Your task to perform on an android device: Open Google Chrome and click the shortcut for Amazon.com Image 0: 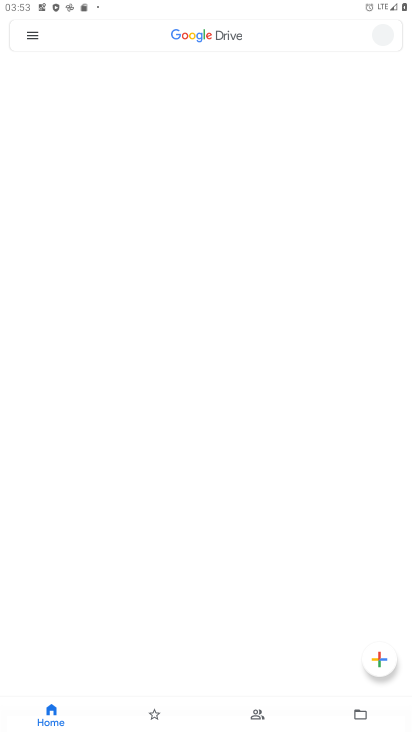
Step 0: press home button
Your task to perform on an android device: Open Google Chrome and click the shortcut for Amazon.com Image 1: 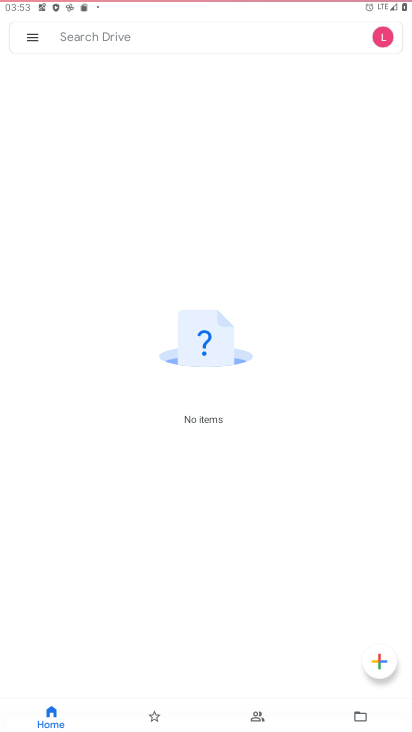
Step 1: press home button
Your task to perform on an android device: Open Google Chrome and click the shortcut for Amazon.com Image 2: 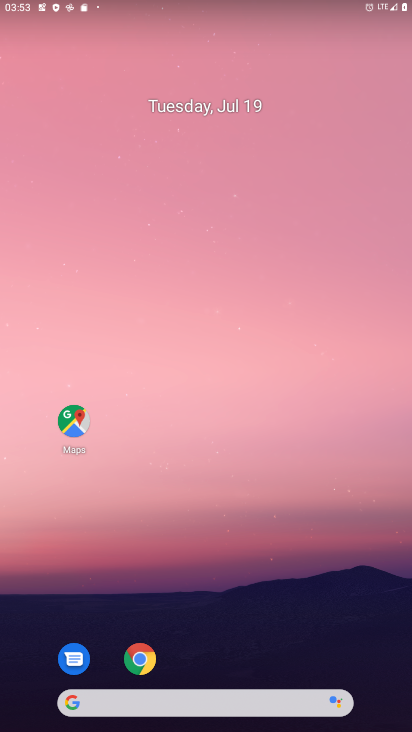
Step 2: click (144, 659)
Your task to perform on an android device: Open Google Chrome and click the shortcut for Amazon.com Image 3: 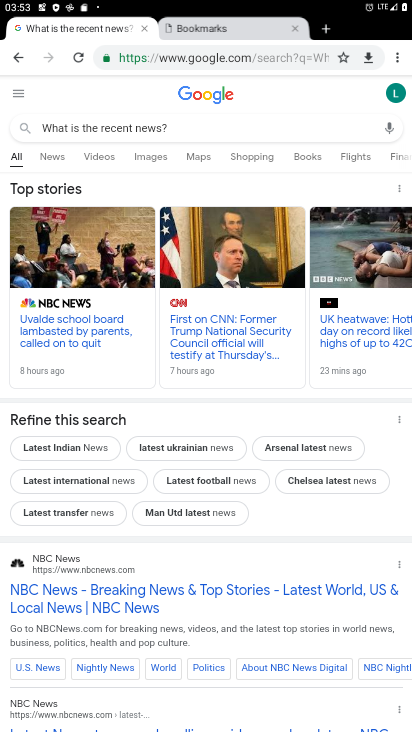
Step 3: click (326, 24)
Your task to perform on an android device: Open Google Chrome and click the shortcut for Amazon.com Image 4: 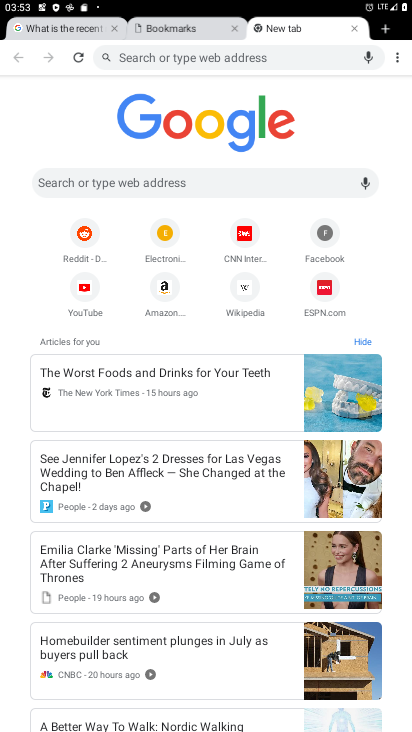
Step 4: click (155, 289)
Your task to perform on an android device: Open Google Chrome and click the shortcut for Amazon.com Image 5: 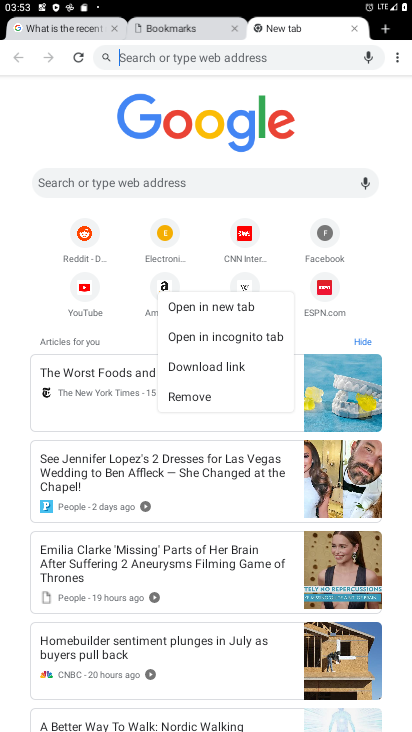
Step 5: click (154, 280)
Your task to perform on an android device: Open Google Chrome and click the shortcut for Amazon.com Image 6: 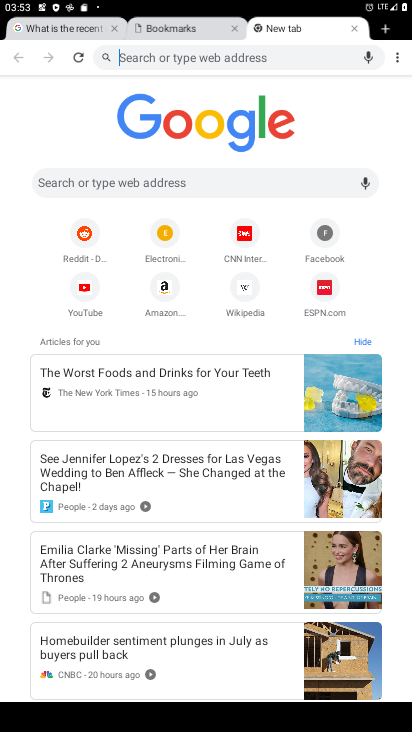
Step 6: click (169, 284)
Your task to perform on an android device: Open Google Chrome and click the shortcut for Amazon.com Image 7: 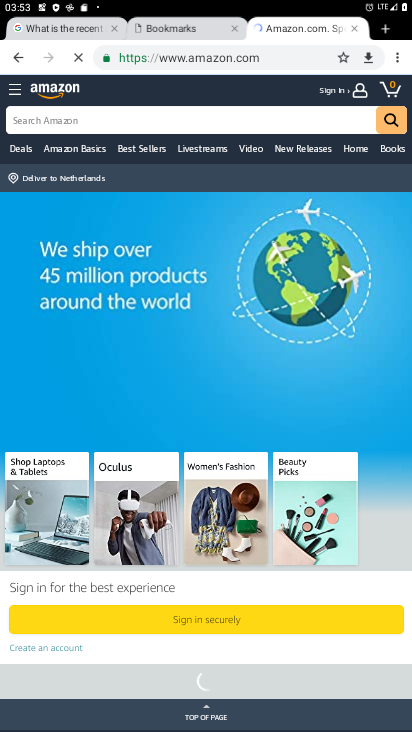
Step 7: task complete